Your task to perform on an android device: Is it going to rain tomorrow? Image 0: 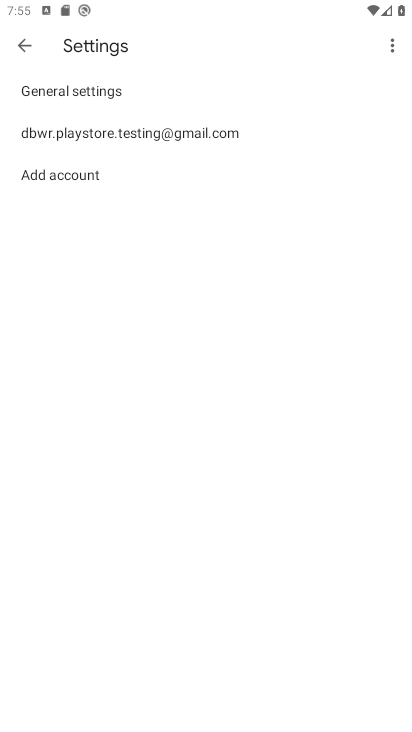
Step 0: press home button
Your task to perform on an android device: Is it going to rain tomorrow? Image 1: 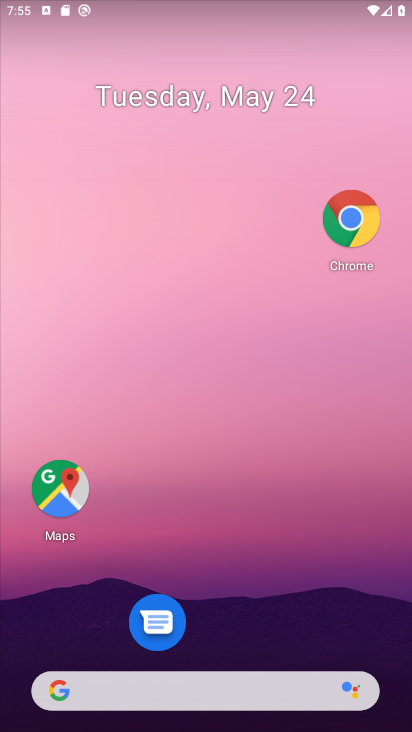
Step 1: drag from (277, 641) to (351, 230)
Your task to perform on an android device: Is it going to rain tomorrow? Image 2: 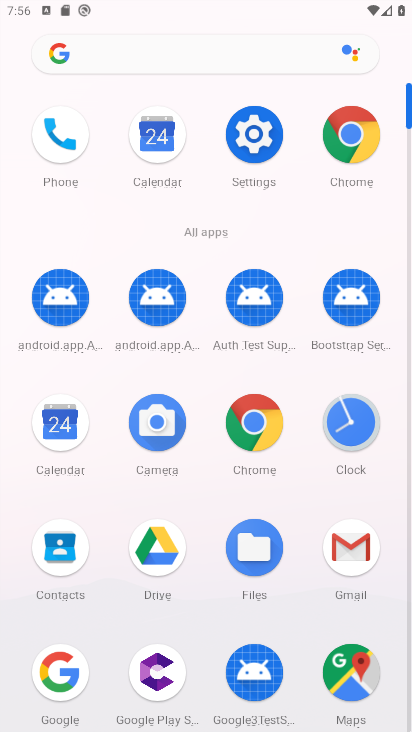
Step 2: click (139, 46)
Your task to perform on an android device: Is it going to rain tomorrow? Image 3: 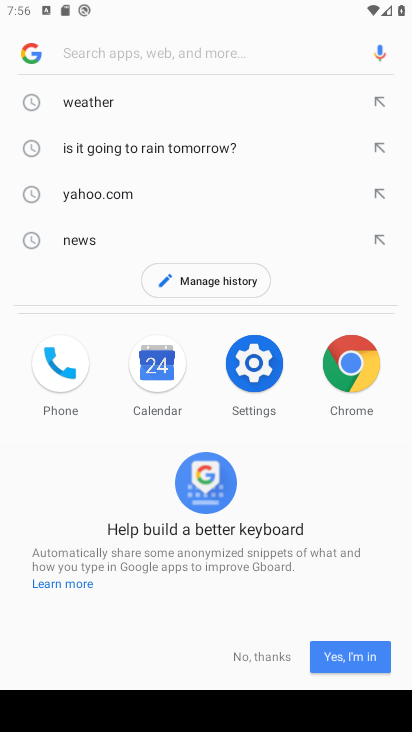
Step 3: click (103, 93)
Your task to perform on an android device: Is it going to rain tomorrow? Image 4: 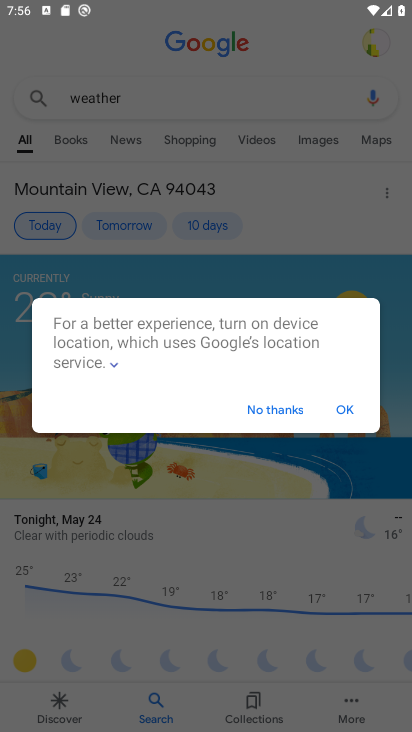
Step 4: click (261, 407)
Your task to perform on an android device: Is it going to rain tomorrow? Image 5: 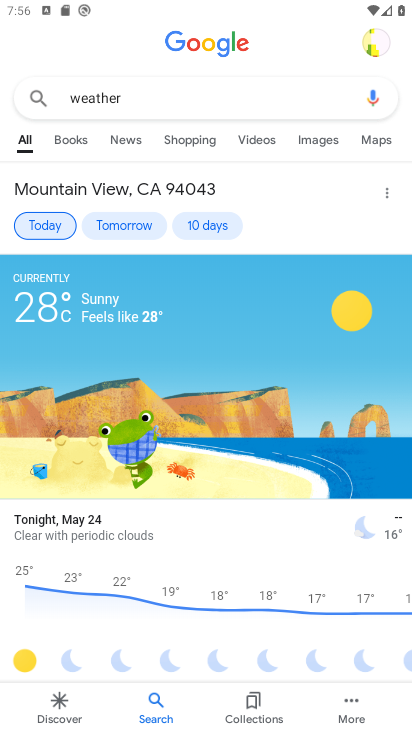
Step 5: task complete